Your task to perform on an android device: Open the phone app and click the voicemail tab. Image 0: 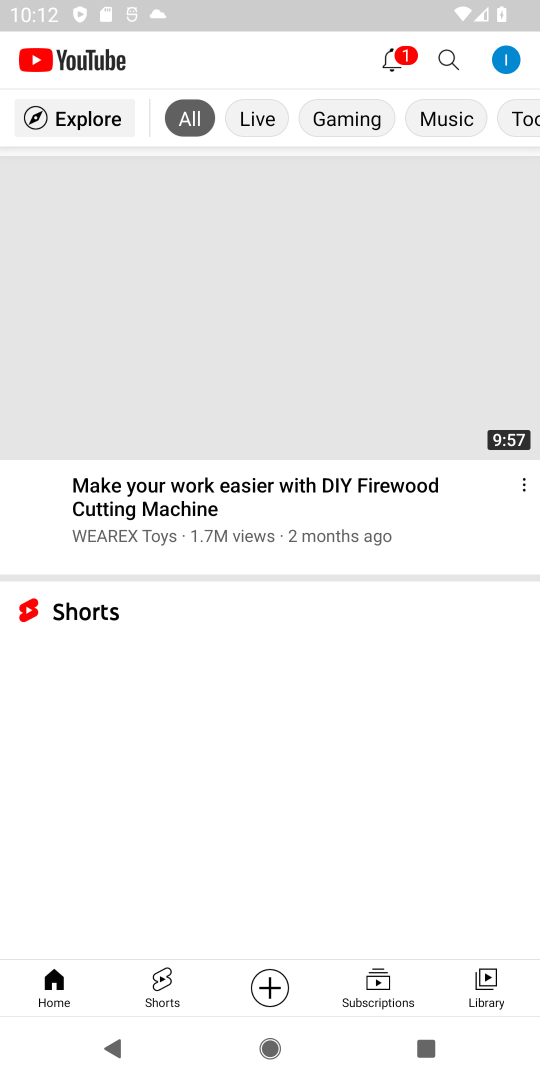
Step 0: press home button
Your task to perform on an android device: Open the phone app and click the voicemail tab. Image 1: 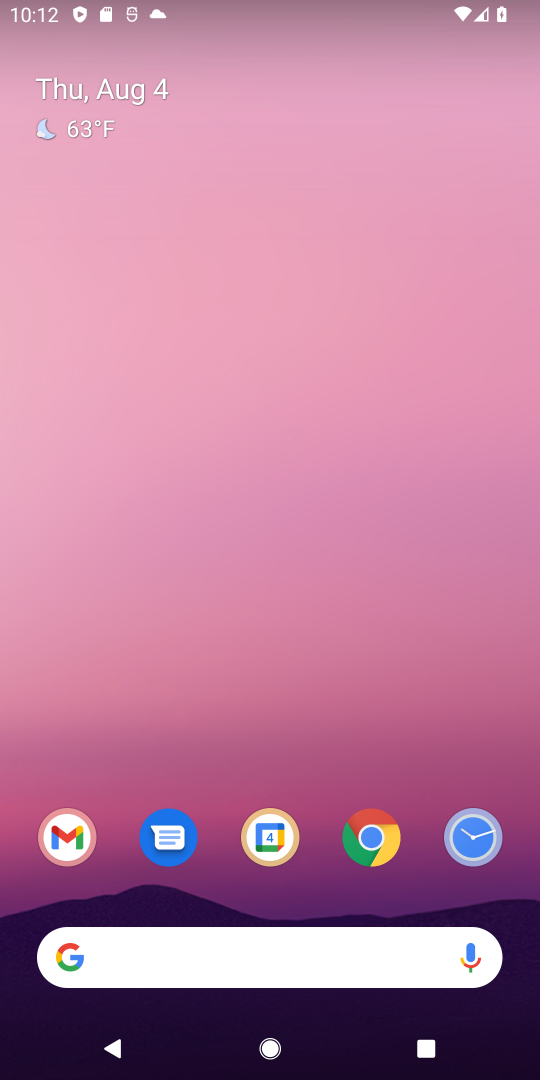
Step 1: drag from (321, 795) to (333, 191)
Your task to perform on an android device: Open the phone app and click the voicemail tab. Image 2: 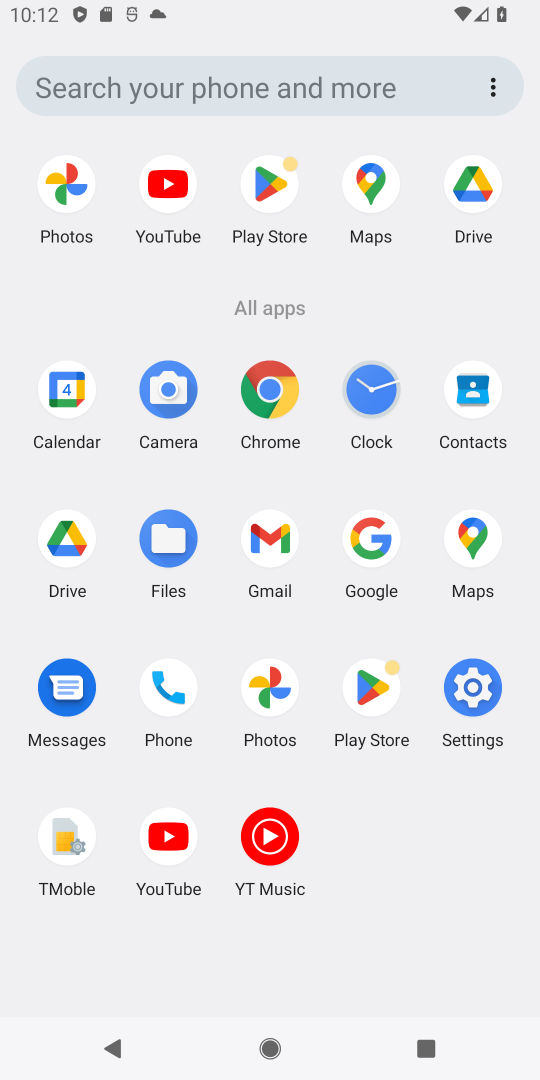
Step 2: click (168, 678)
Your task to perform on an android device: Open the phone app and click the voicemail tab. Image 3: 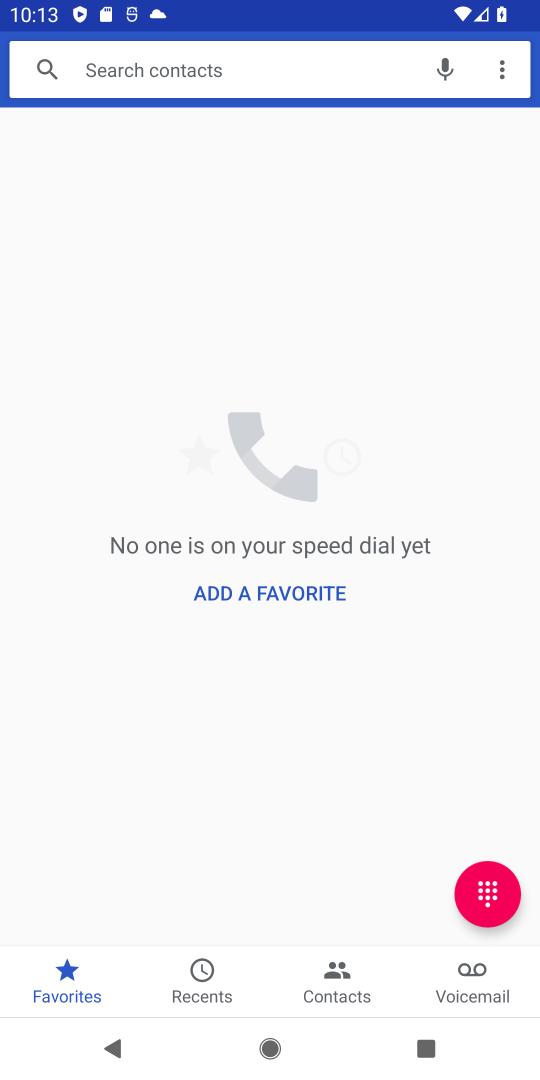
Step 3: click (476, 979)
Your task to perform on an android device: Open the phone app and click the voicemail tab. Image 4: 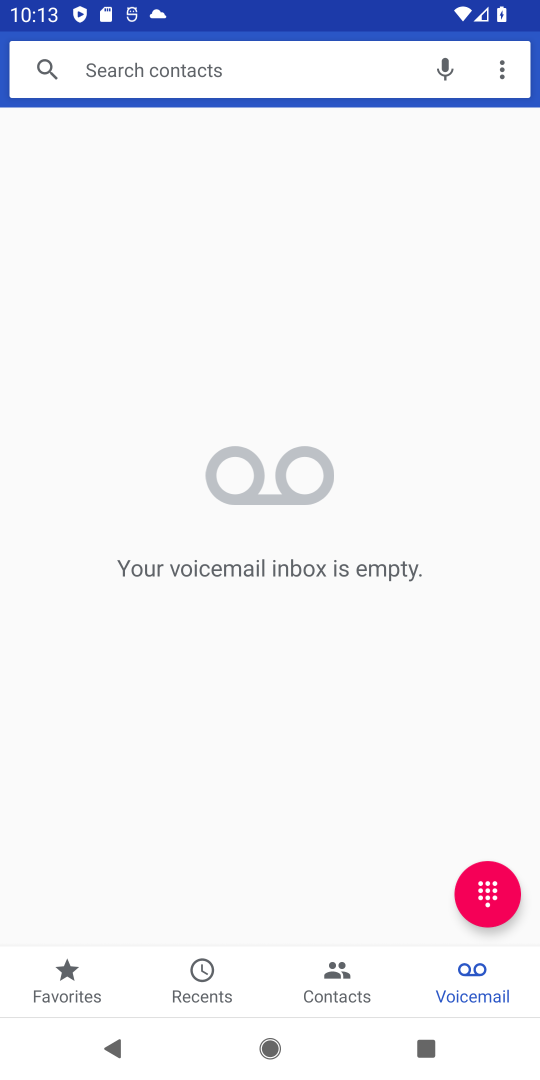
Step 4: task complete